Your task to perform on an android device: Open privacy settings Image 0: 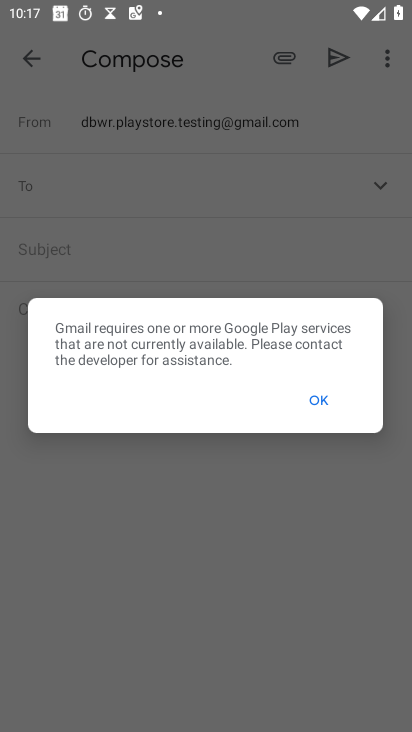
Step 0: click (327, 388)
Your task to perform on an android device: Open privacy settings Image 1: 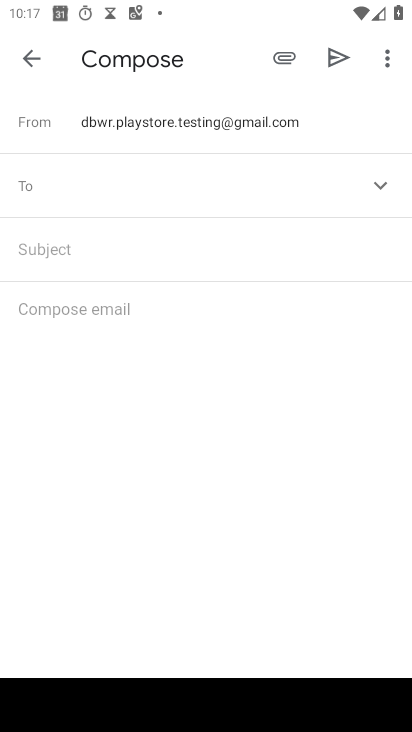
Step 1: click (317, 401)
Your task to perform on an android device: Open privacy settings Image 2: 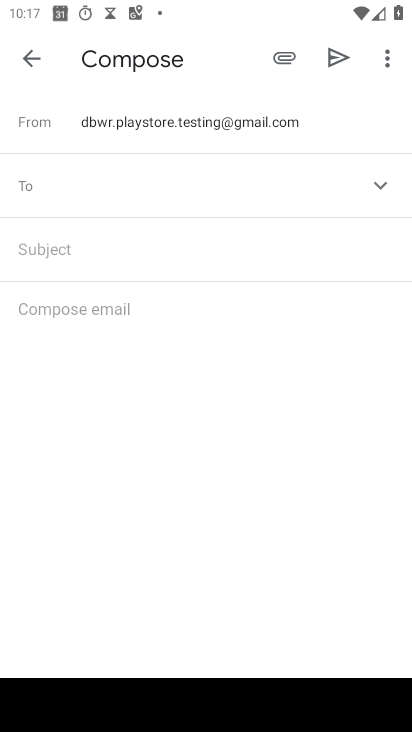
Step 2: press back button
Your task to perform on an android device: Open privacy settings Image 3: 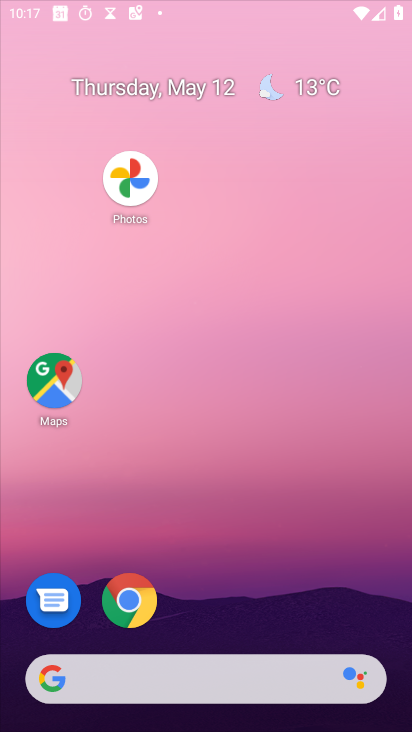
Step 3: click (23, 56)
Your task to perform on an android device: Open privacy settings Image 4: 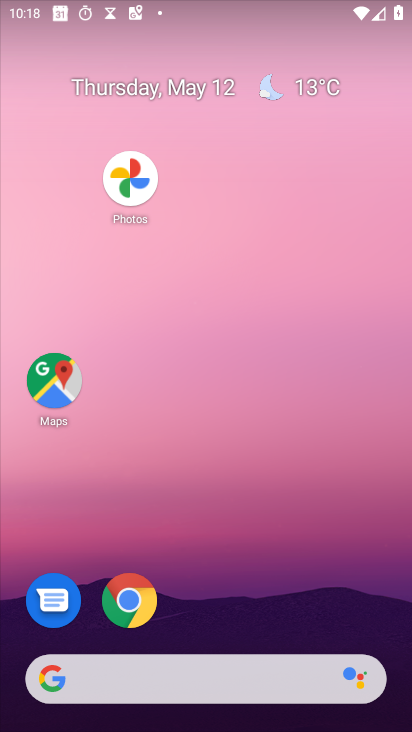
Step 4: drag from (262, 588) to (153, 5)
Your task to perform on an android device: Open privacy settings Image 5: 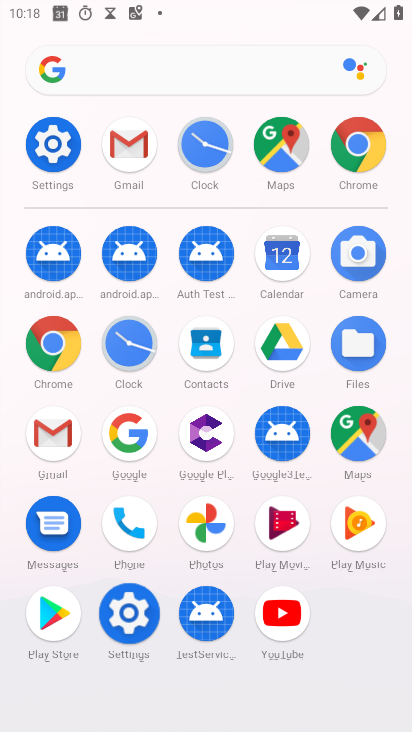
Step 5: click (59, 150)
Your task to perform on an android device: Open privacy settings Image 6: 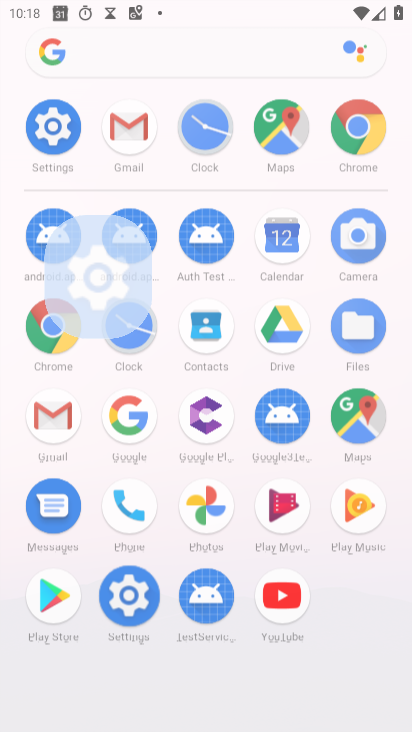
Step 6: click (59, 146)
Your task to perform on an android device: Open privacy settings Image 7: 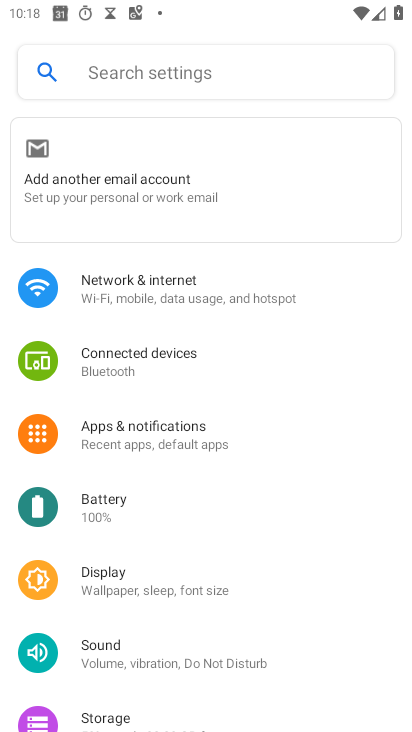
Step 7: click (64, 97)
Your task to perform on an android device: Open privacy settings Image 8: 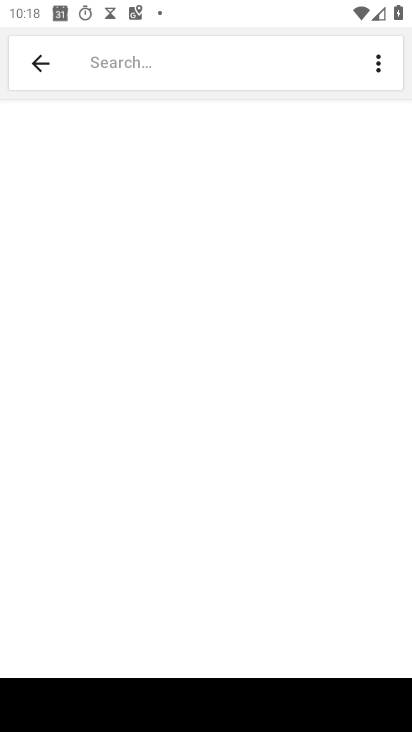
Step 8: drag from (74, 560) to (35, 225)
Your task to perform on an android device: Open privacy settings Image 9: 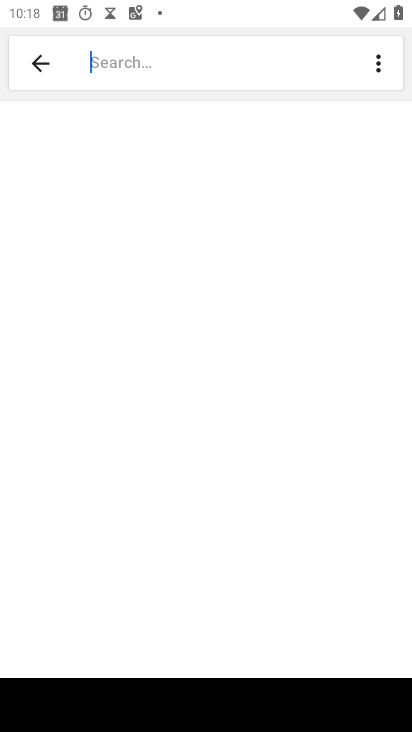
Step 9: drag from (150, 422) to (205, 277)
Your task to perform on an android device: Open privacy settings Image 10: 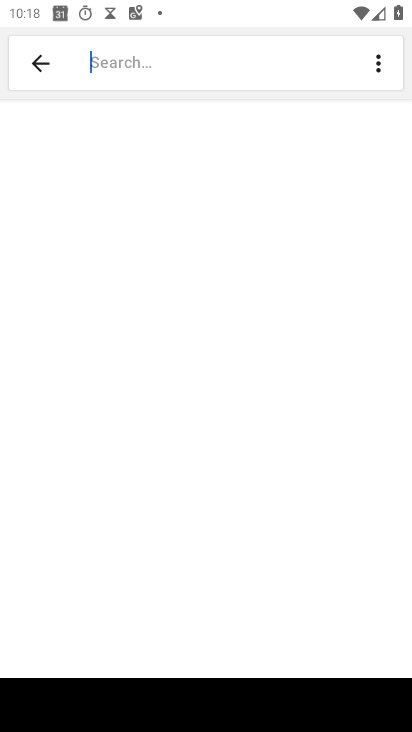
Step 10: press back button
Your task to perform on an android device: Open privacy settings Image 11: 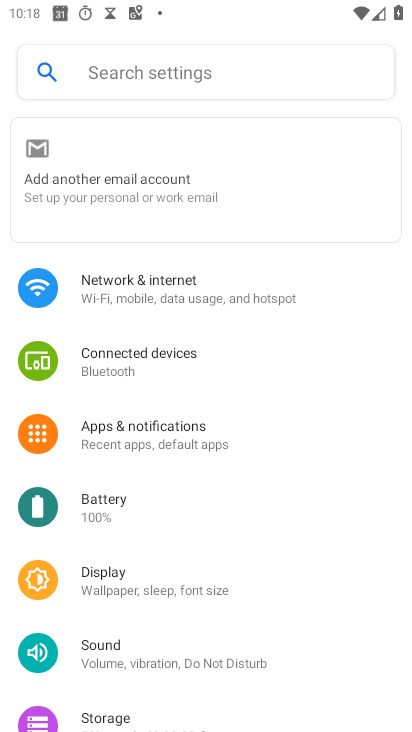
Step 11: click (37, 55)
Your task to perform on an android device: Open privacy settings Image 12: 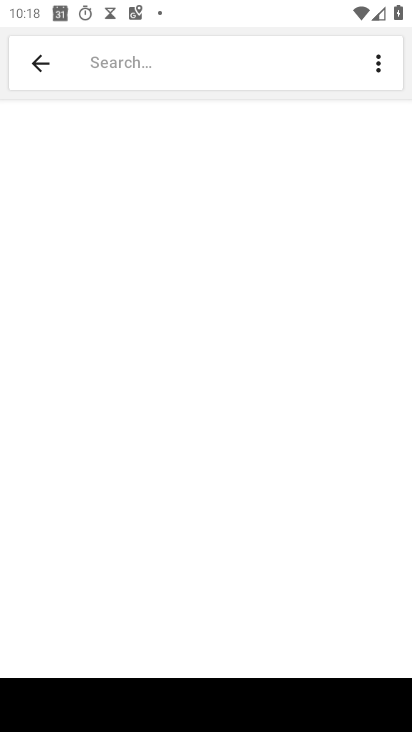
Step 12: click (32, 72)
Your task to perform on an android device: Open privacy settings Image 13: 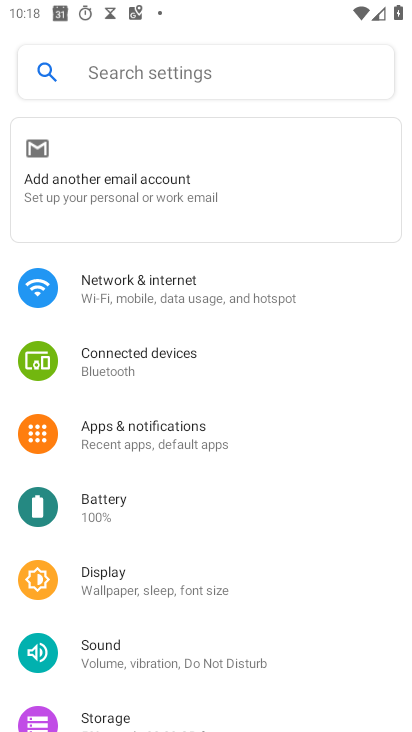
Step 13: drag from (124, 583) to (110, 178)
Your task to perform on an android device: Open privacy settings Image 14: 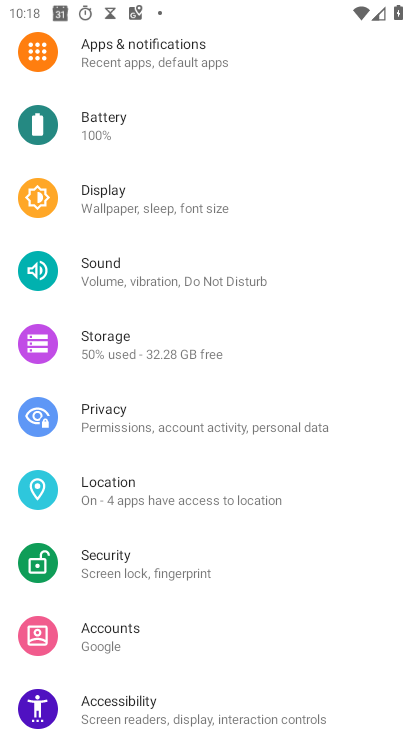
Step 14: drag from (141, 530) to (83, 66)
Your task to perform on an android device: Open privacy settings Image 15: 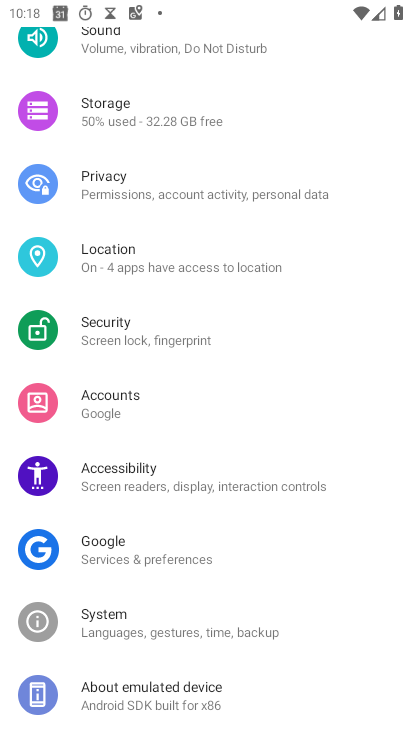
Step 15: drag from (204, 441) to (157, 107)
Your task to perform on an android device: Open privacy settings Image 16: 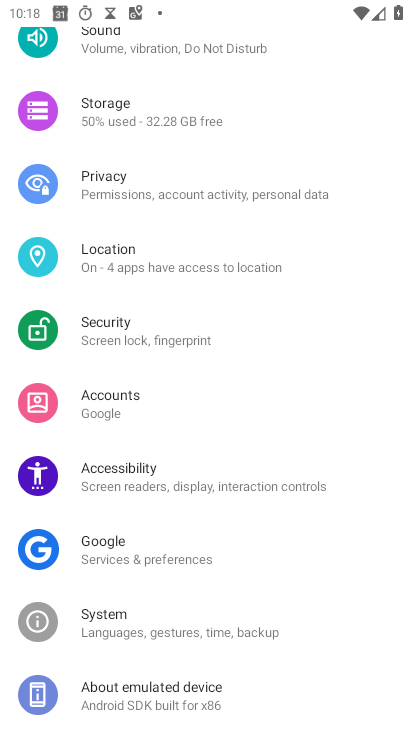
Step 16: click (108, 188)
Your task to perform on an android device: Open privacy settings Image 17: 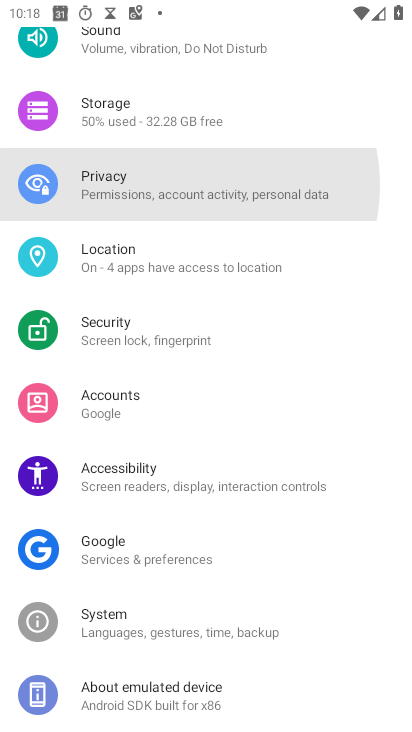
Step 17: click (108, 188)
Your task to perform on an android device: Open privacy settings Image 18: 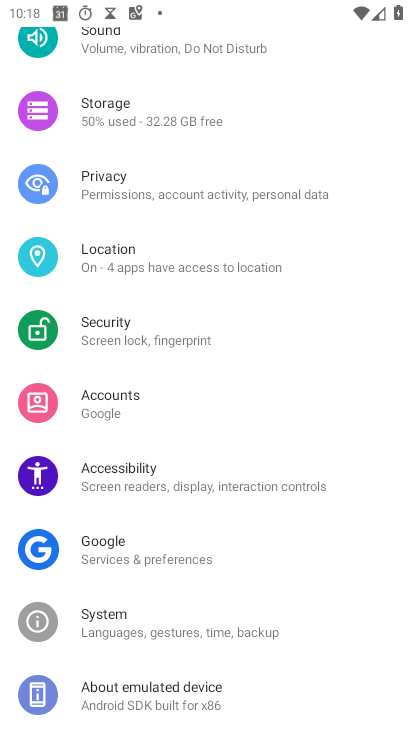
Step 18: click (109, 191)
Your task to perform on an android device: Open privacy settings Image 19: 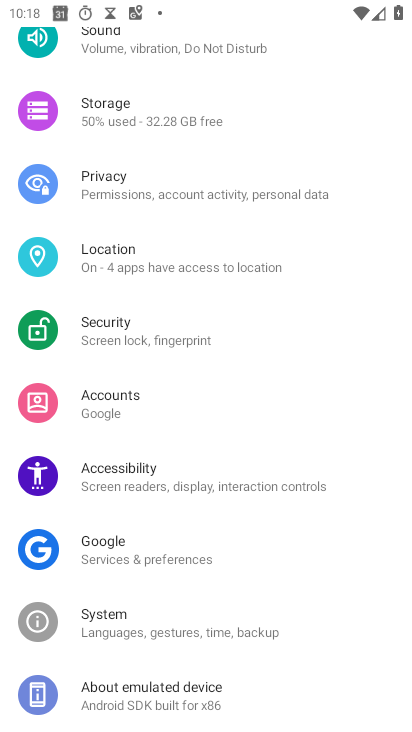
Step 19: click (109, 191)
Your task to perform on an android device: Open privacy settings Image 20: 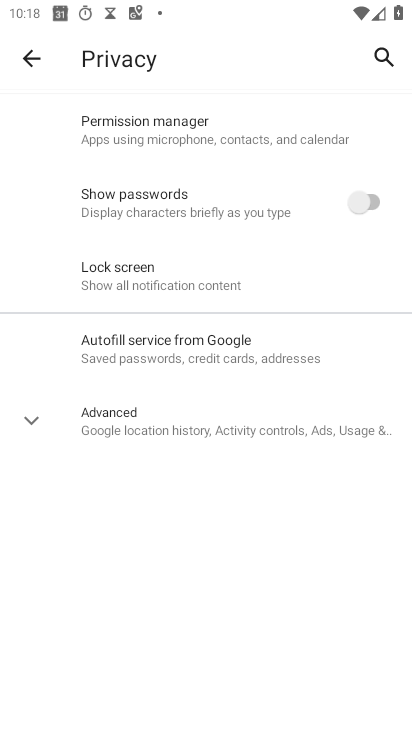
Step 20: task complete